Your task to perform on an android device: set default search engine in the chrome app Image 0: 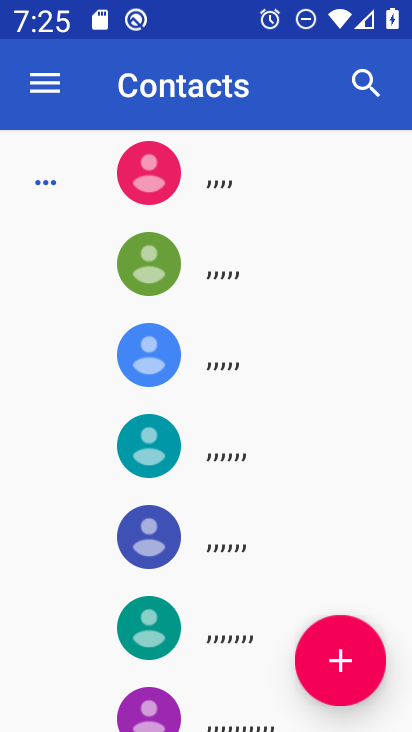
Step 0: press home button
Your task to perform on an android device: set default search engine in the chrome app Image 1: 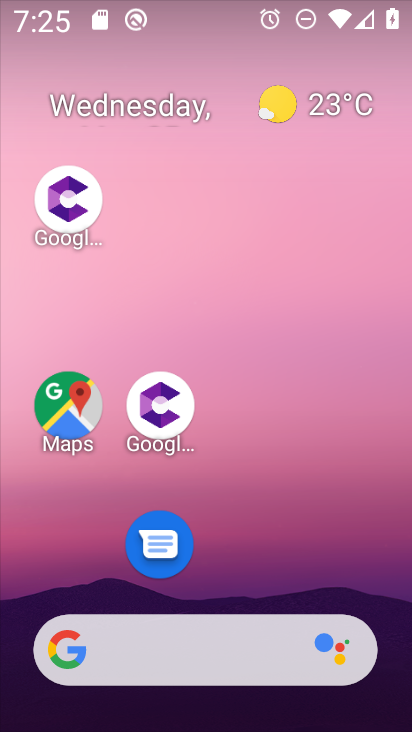
Step 1: drag from (287, 491) to (219, 29)
Your task to perform on an android device: set default search engine in the chrome app Image 2: 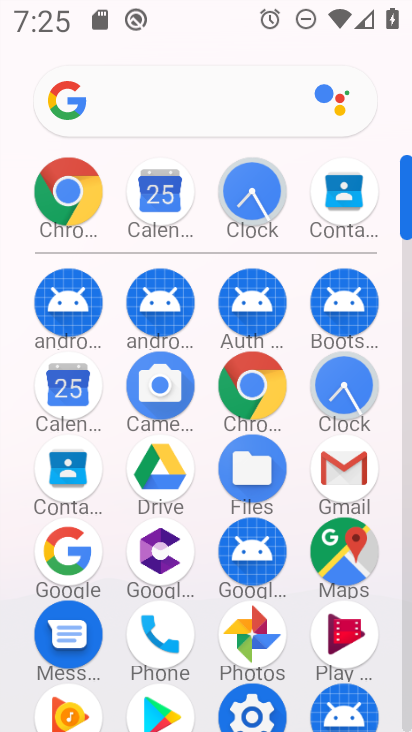
Step 2: click (67, 190)
Your task to perform on an android device: set default search engine in the chrome app Image 3: 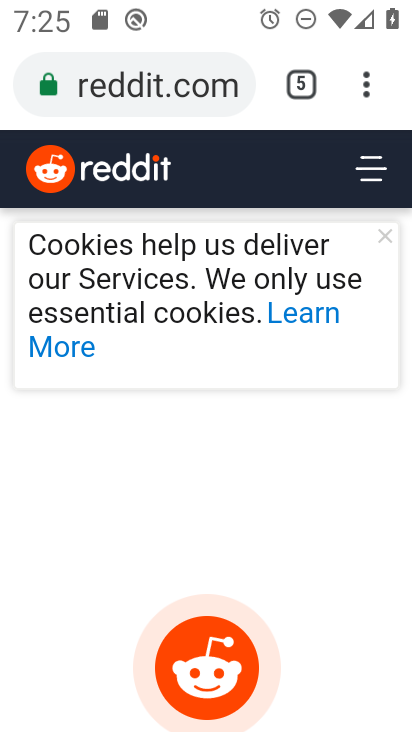
Step 3: click (367, 84)
Your task to perform on an android device: set default search engine in the chrome app Image 4: 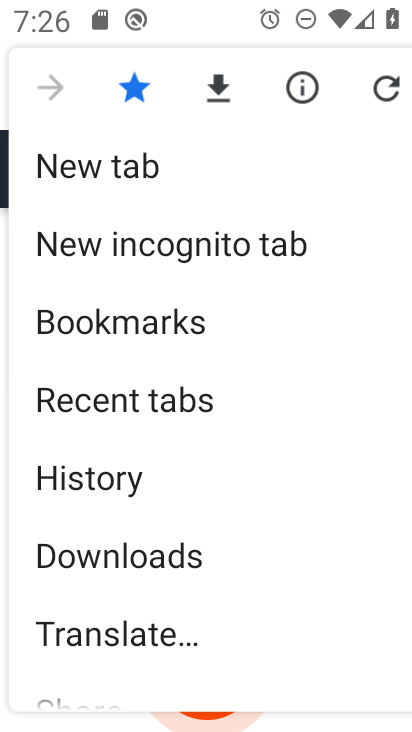
Step 4: drag from (228, 539) to (191, 181)
Your task to perform on an android device: set default search engine in the chrome app Image 5: 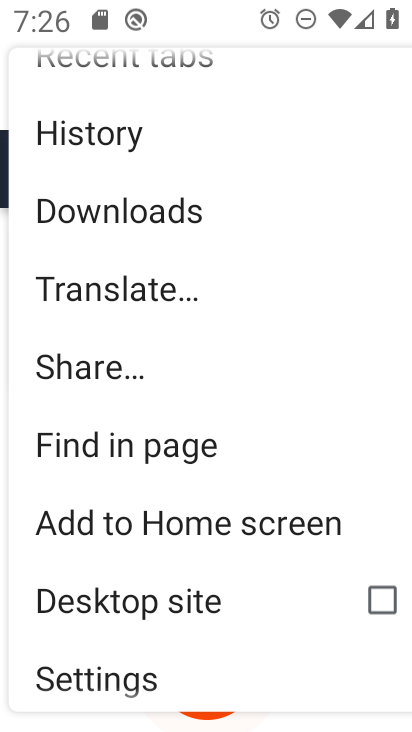
Step 5: click (96, 675)
Your task to perform on an android device: set default search engine in the chrome app Image 6: 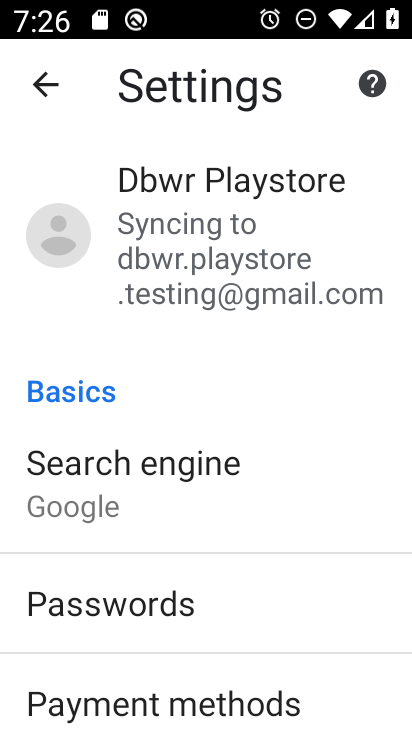
Step 6: click (116, 453)
Your task to perform on an android device: set default search engine in the chrome app Image 7: 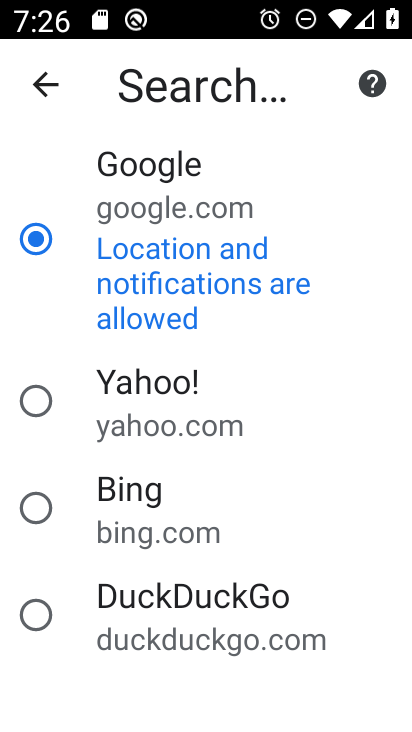
Step 7: task complete